Your task to perform on an android device: check battery use Image 0: 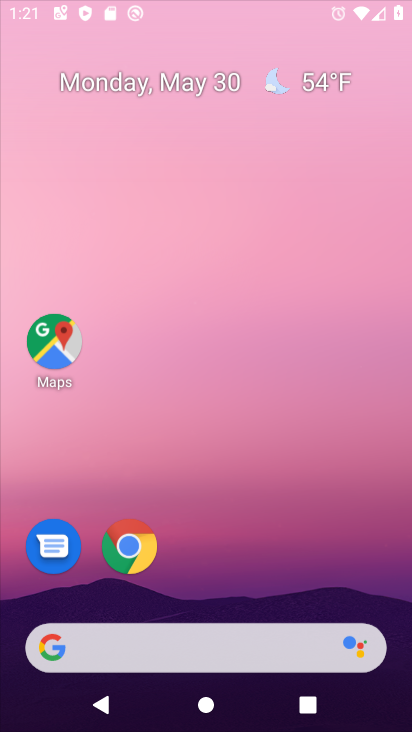
Step 0: press home button
Your task to perform on an android device: check battery use Image 1: 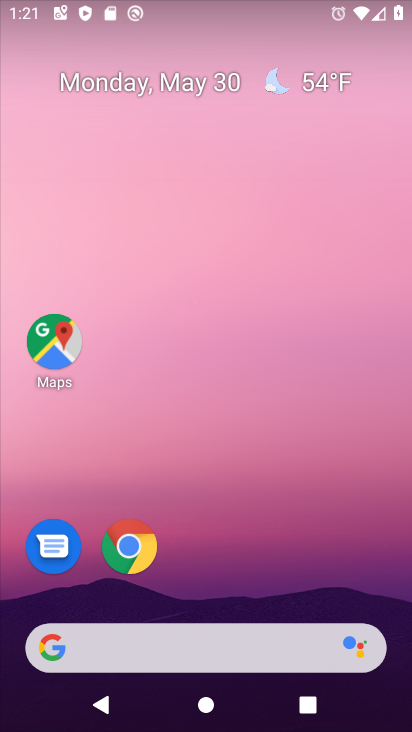
Step 1: drag from (214, 606) to (230, 214)
Your task to perform on an android device: check battery use Image 2: 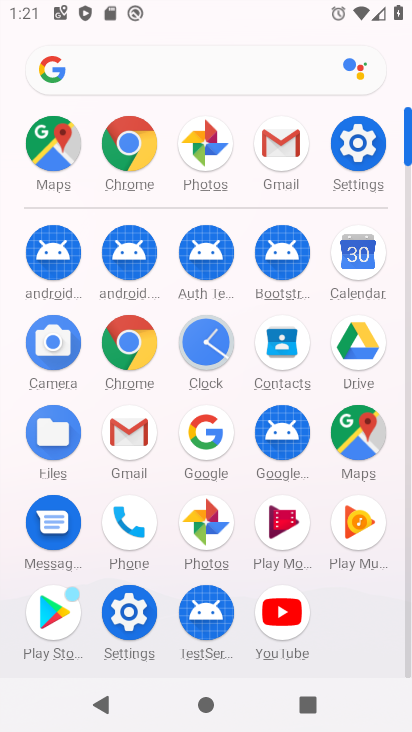
Step 2: click (361, 151)
Your task to perform on an android device: check battery use Image 3: 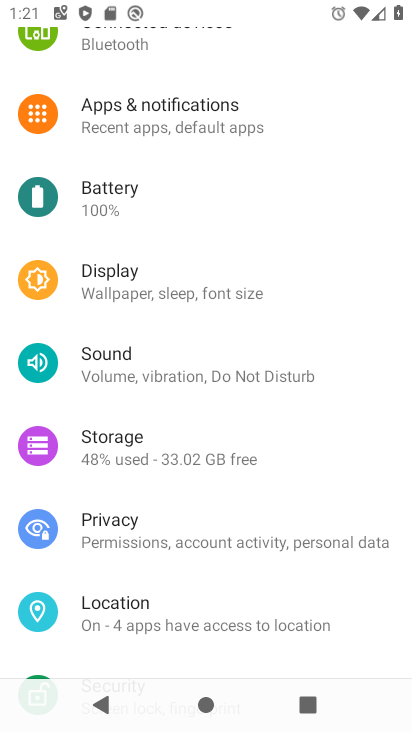
Step 3: click (110, 192)
Your task to perform on an android device: check battery use Image 4: 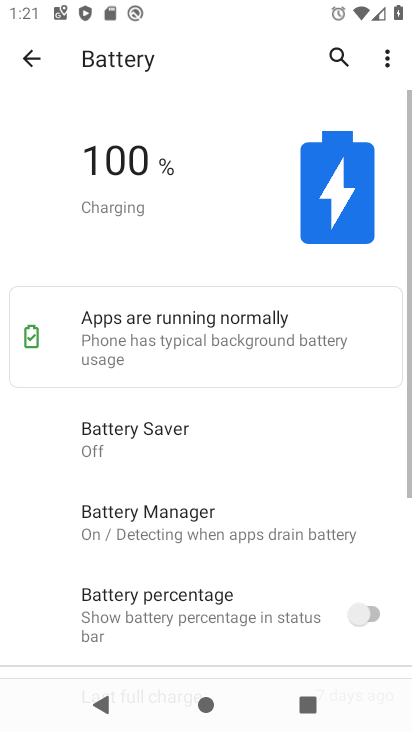
Step 4: click (392, 54)
Your task to perform on an android device: check battery use Image 5: 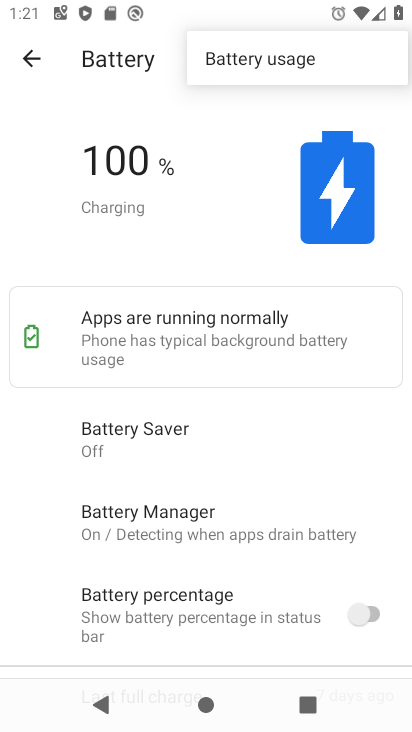
Step 5: click (264, 66)
Your task to perform on an android device: check battery use Image 6: 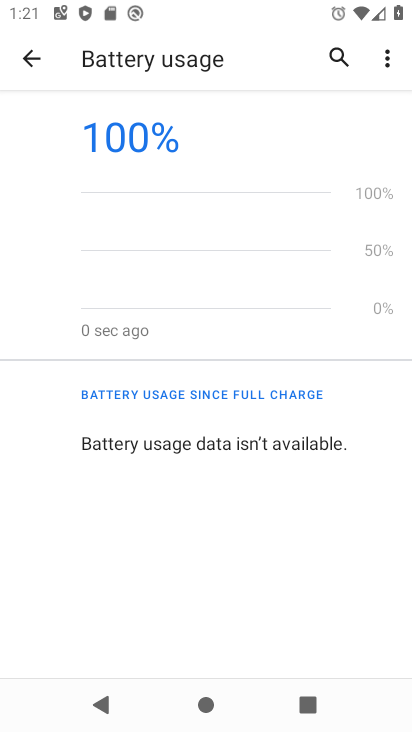
Step 6: task complete